Your task to perform on an android device: Open the phone app and click the voicemail tab. Image 0: 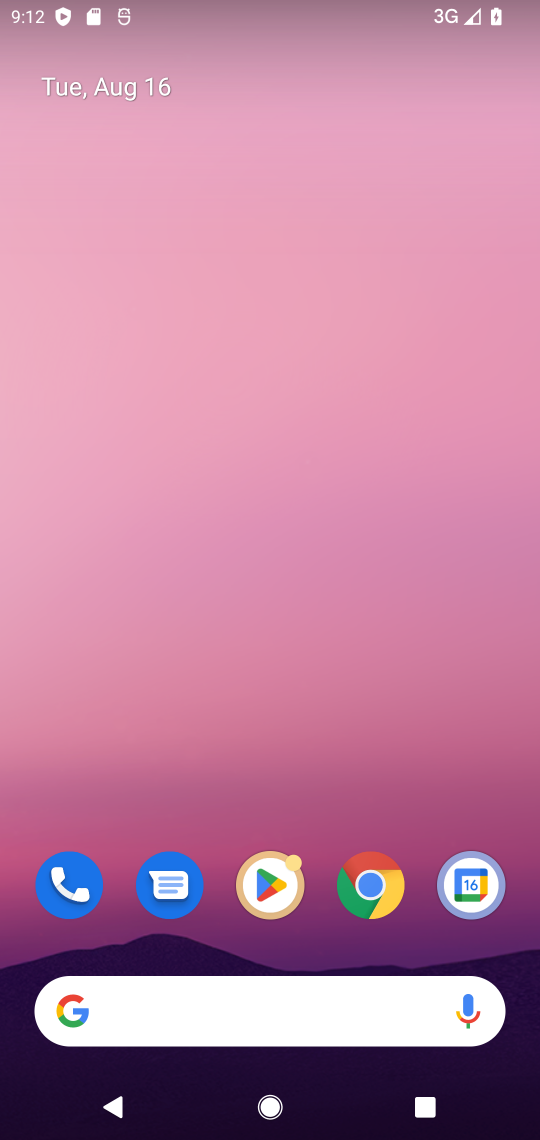
Step 0: drag from (241, 958) to (65, 890)
Your task to perform on an android device: Open the phone app and click the voicemail tab. Image 1: 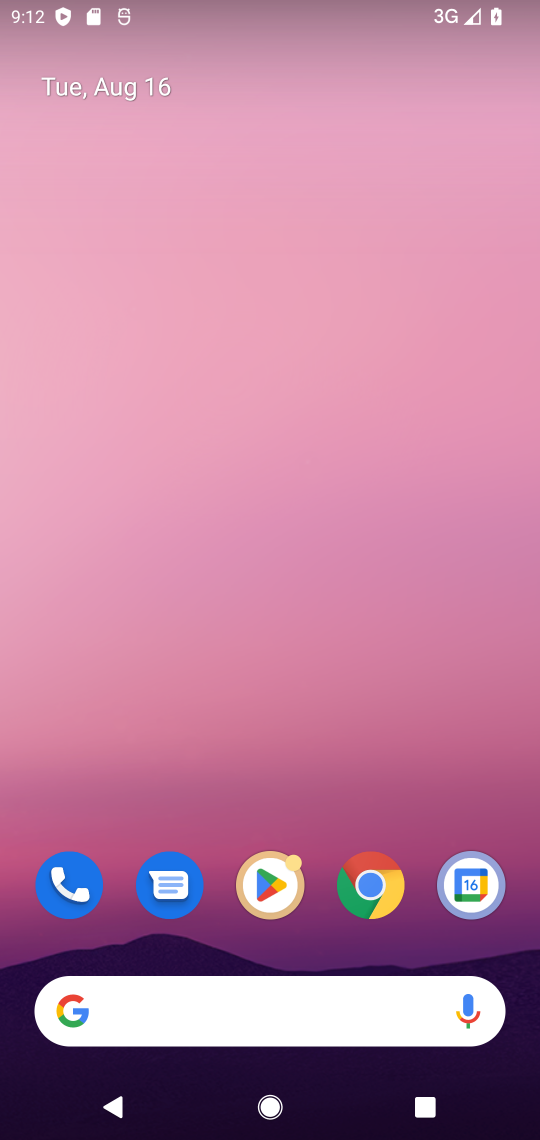
Step 1: click (65, 890)
Your task to perform on an android device: Open the phone app and click the voicemail tab. Image 2: 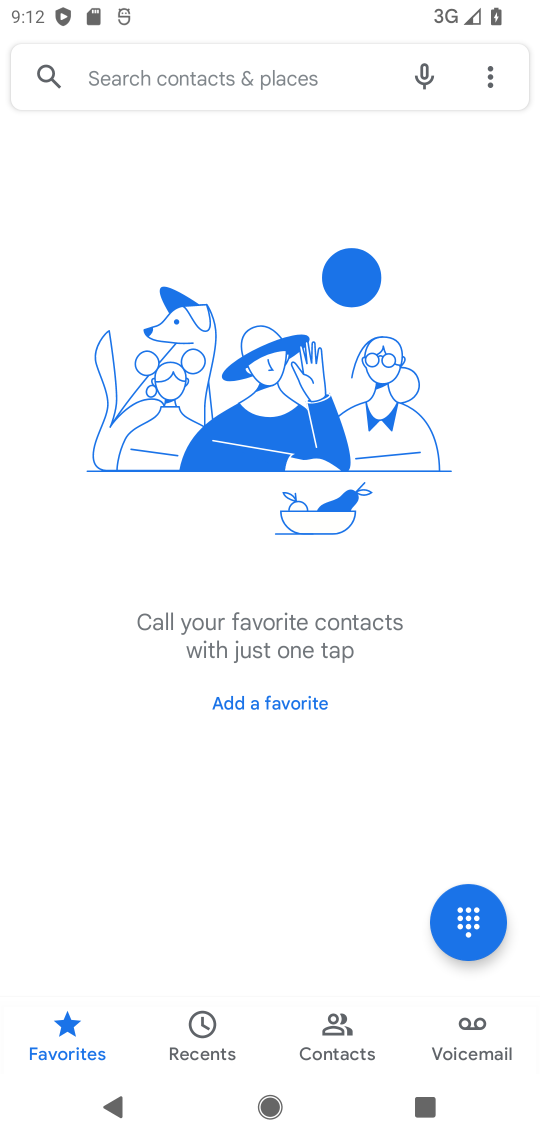
Step 2: click (477, 1050)
Your task to perform on an android device: Open the phone app and click the voicemail tab. Image 3: 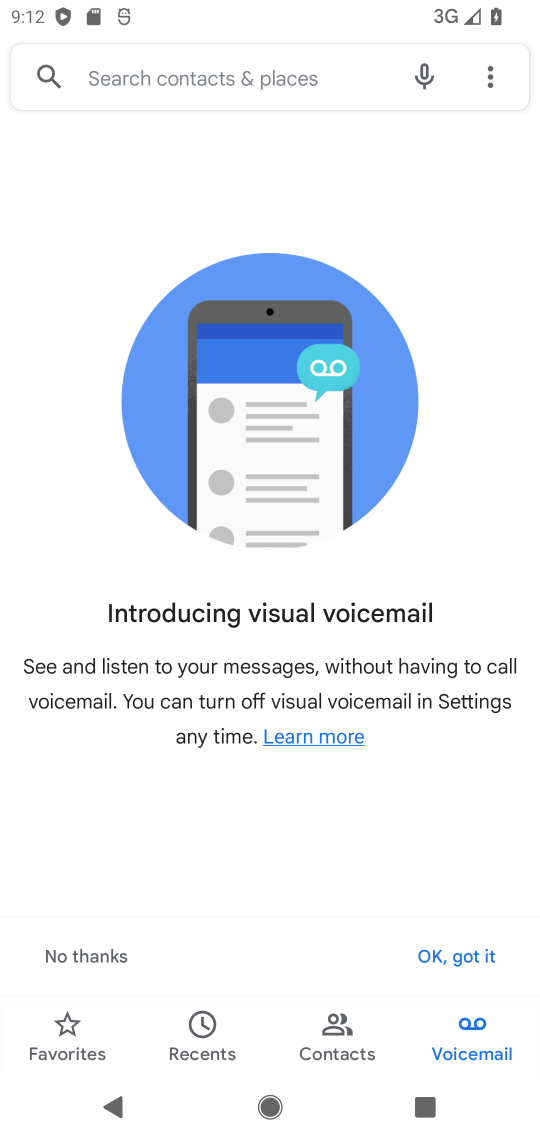
Step 3: task complete